Your task to perform on an android device: move a message to another label in the gmail app Image 0: 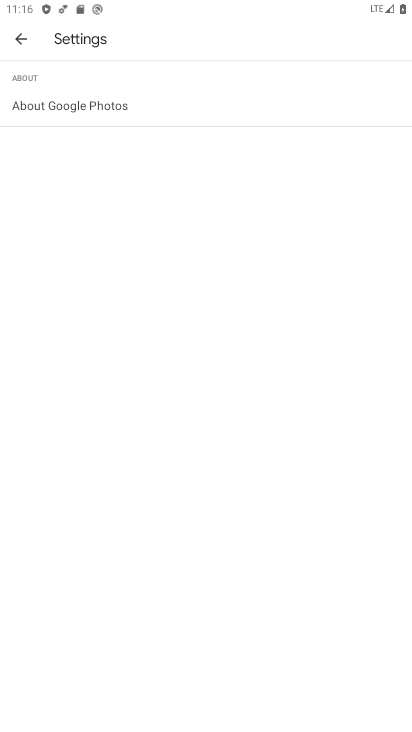
Step 0: press home button
Your task to perform on an android device: move a message to another label in the gmail app Image 1: 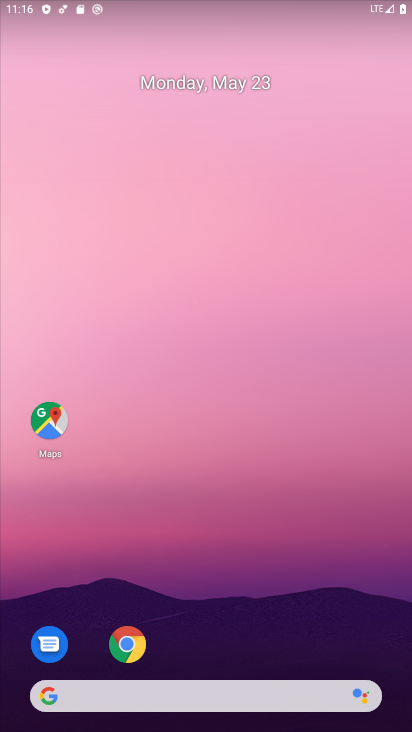
Step 1: drag from (250, 578) to (289, 169)
Your task to perform on an android device: move a message to another label in the gmail app Image 2: 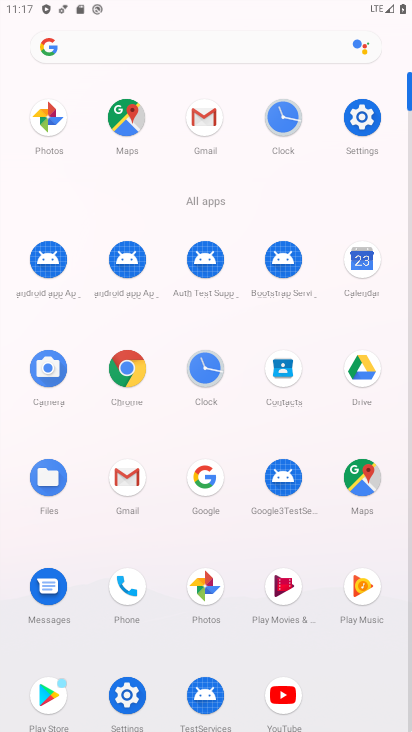
Step 2: click (195, 117)
Your task to perform on an android device: move a message to another label in the gmail app Image 3: 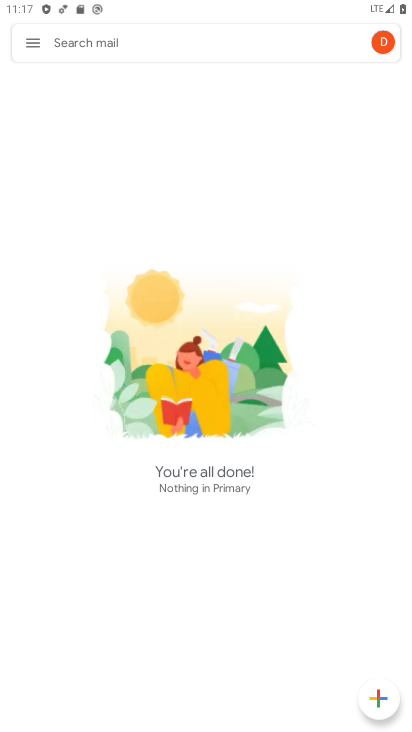
Step 3: click (33, 53)
Your task to perform on an android device: move a message to another label in the gmail app Image 4: 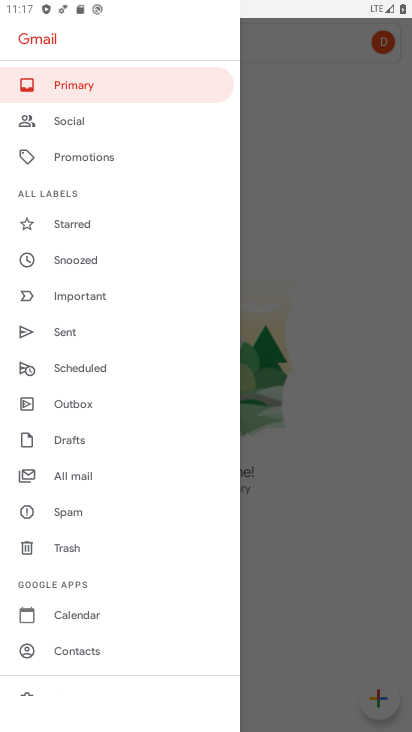
Step 4: click (108, 480)
Your task to perform on an android device: move a message to another label in the gmail app Image 5: 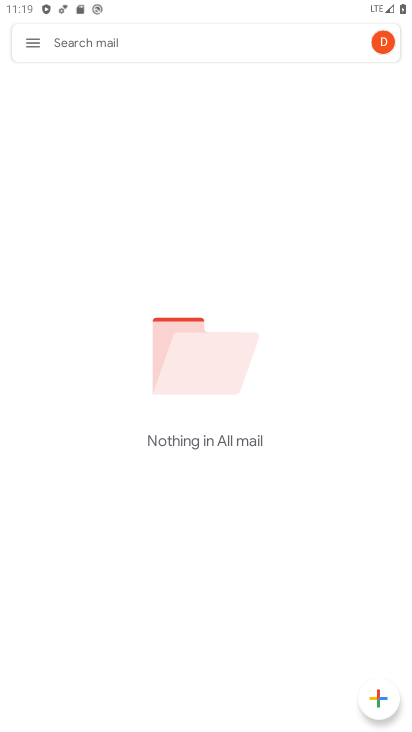
Step 5: task complete